Your task to perform on an android device: open app "McDonald's" (install if not already installed) Image 0: 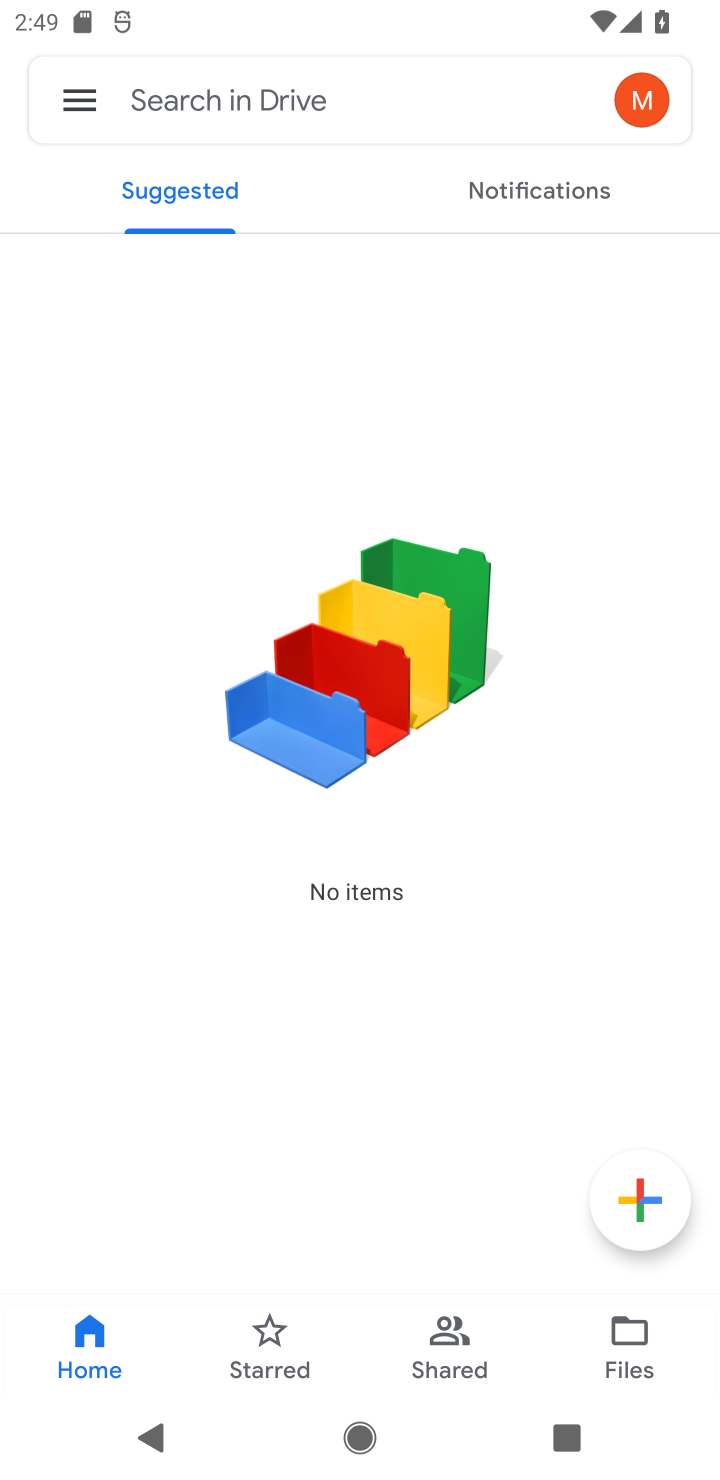
Step 0: press home button
Your task to perform on an android device: open app "McDonald's" (install if not already installed) Image 1: 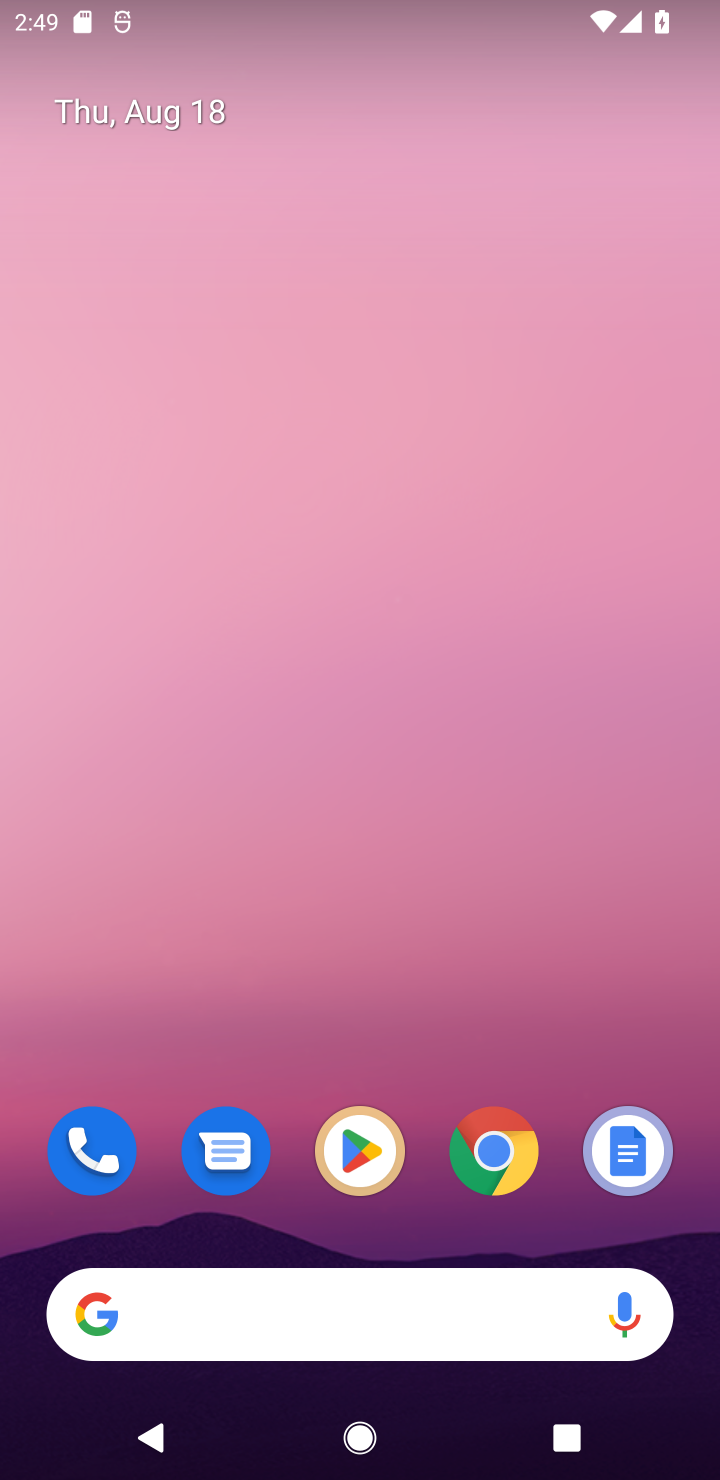
Step 1: click (390, 1157)
Your task to perform on an android device: open app "McDonald's" (install if not already installed) Image 2: 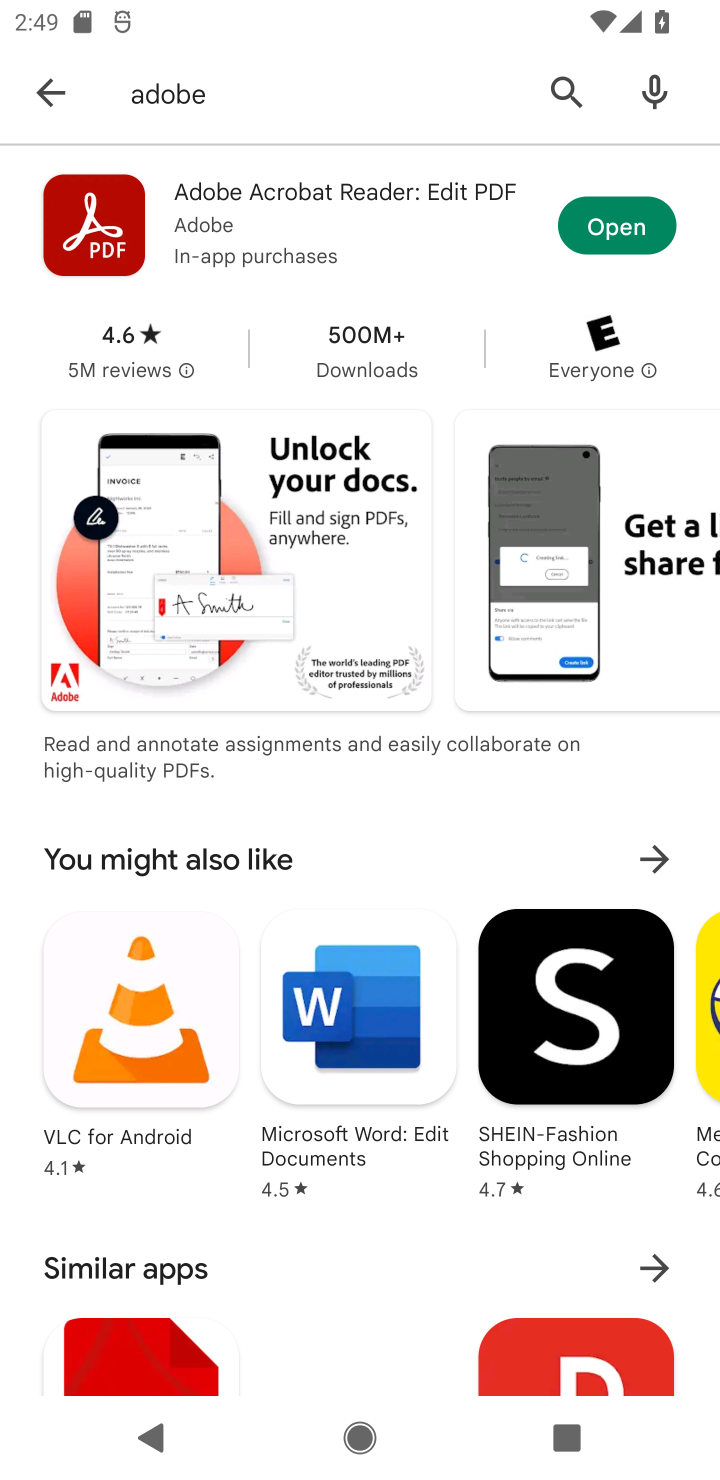
Step 2: click (541, 138)
Your task to perform on an android device: open app "McDonald's" (install if not already installed) Image 3: 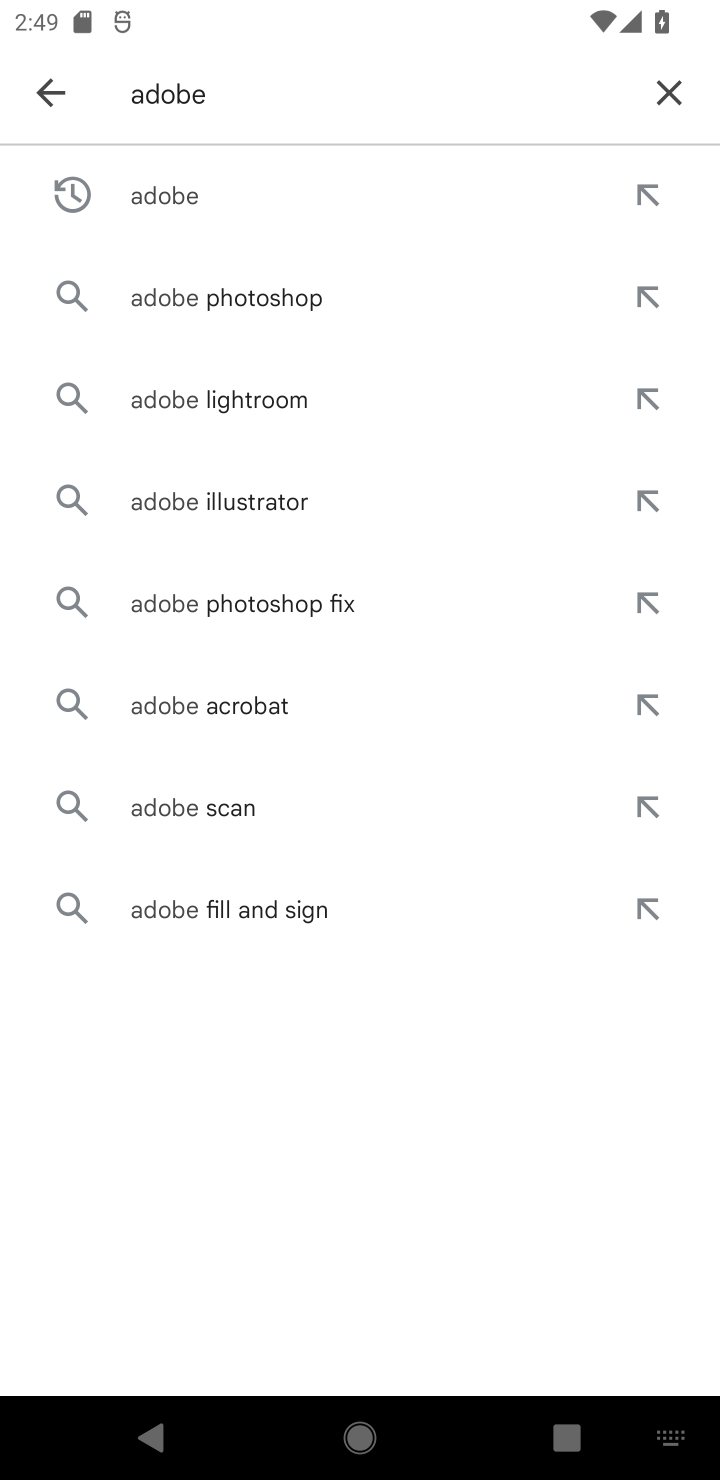
Step 3: click (671, 85)
Your task to perform on an android device: open app "McDonald's" (install if not already installed) Image 4: 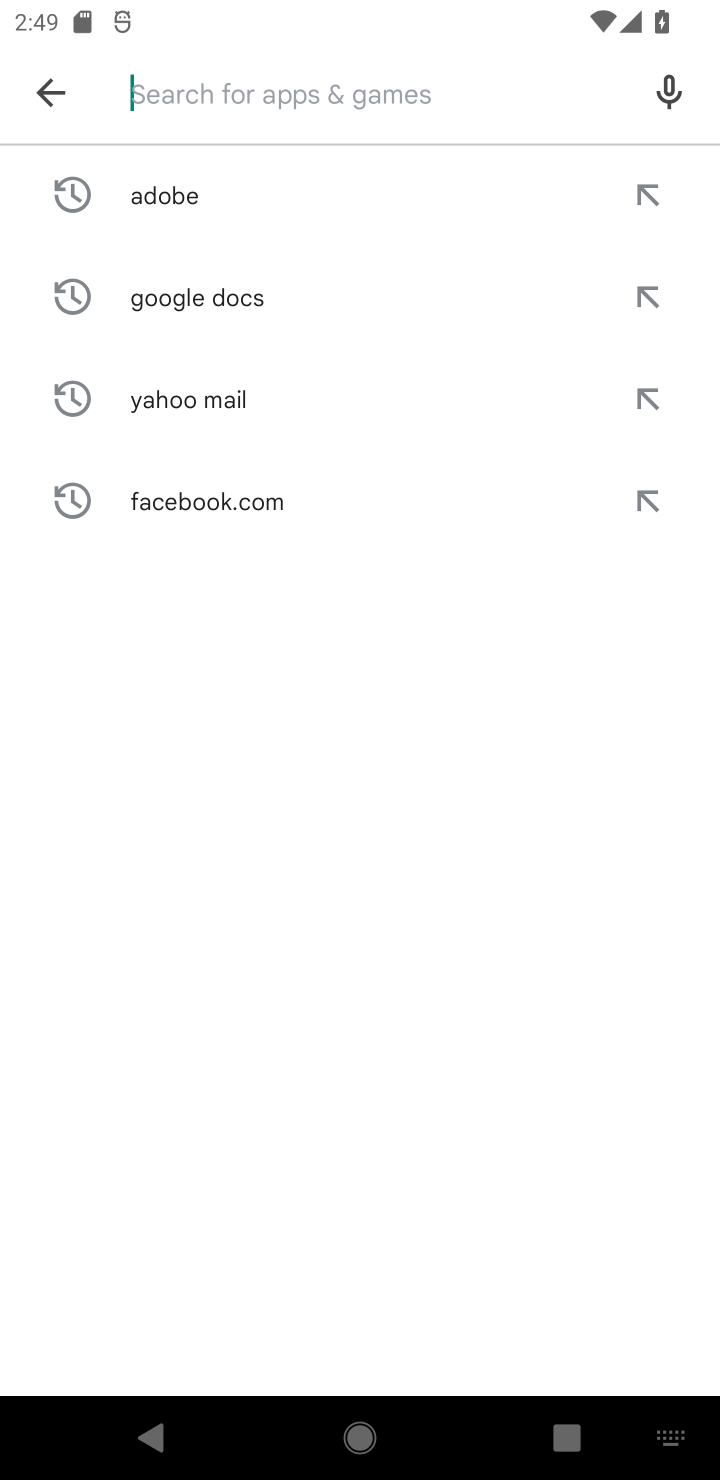
Step 4: type "Mcdolands"
Your task to perform on an android device: open app "McDonald's" (install if not already installed) Image 5: 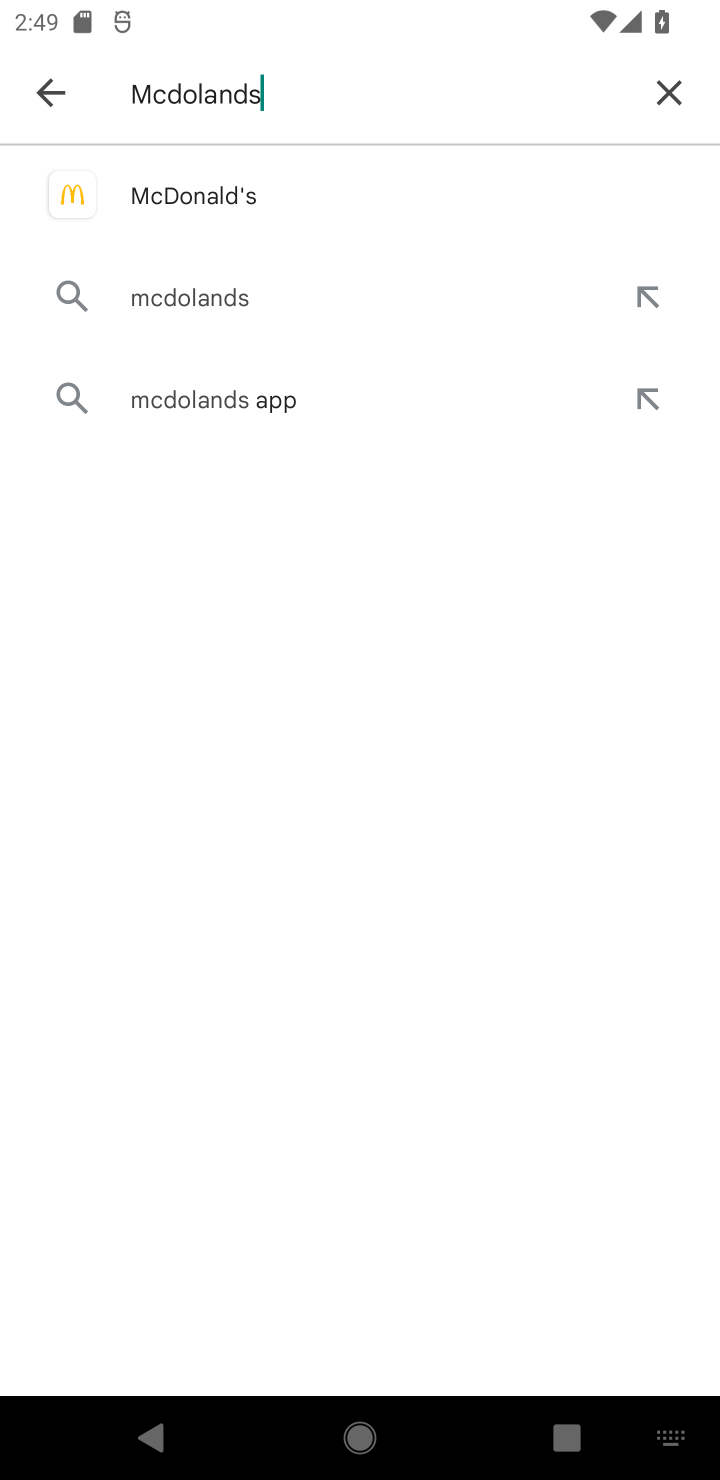
Step 5: click (331, 192)
Your task to perform on an android device: open app "McDonald's" (install if not already installed) Image 6: 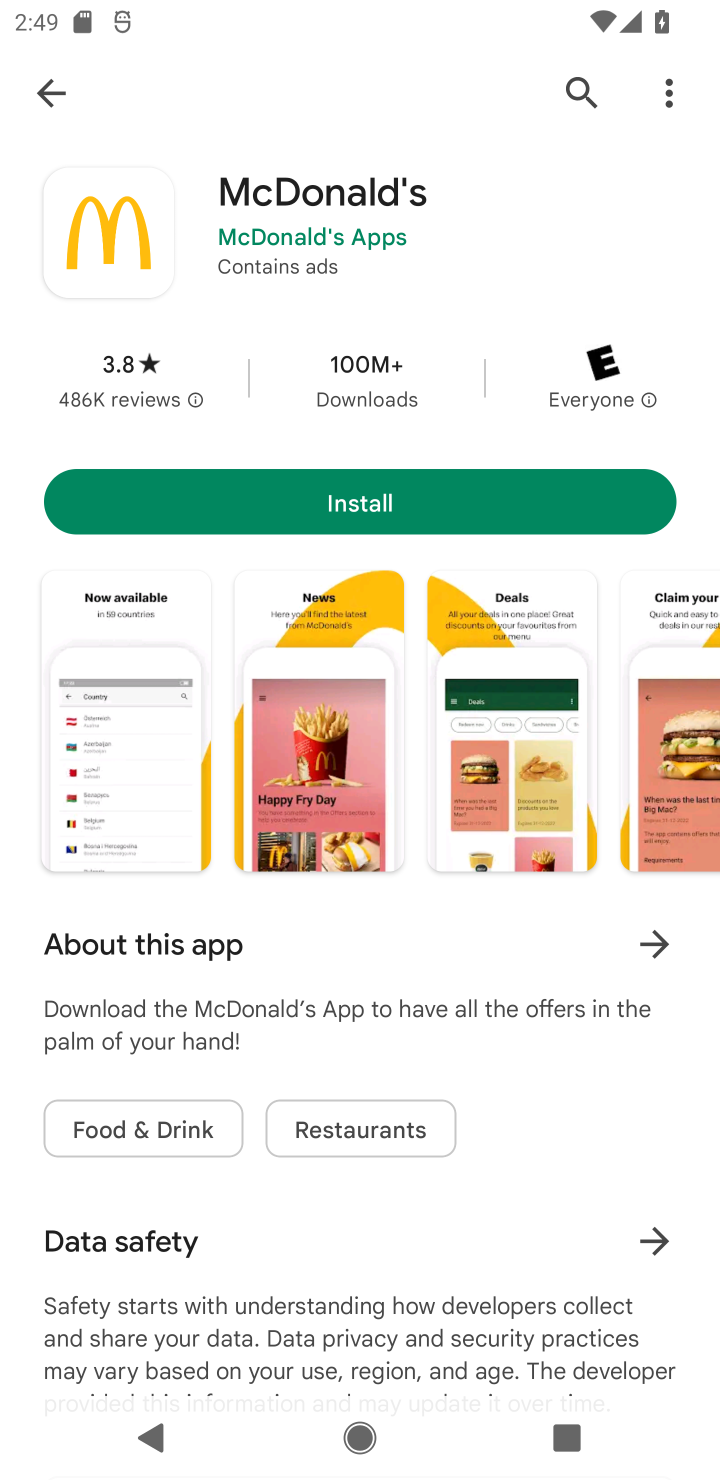
Step 6: click (484, 478)
Your task to perform on an android device: open app "McDonald's" (install if not already installed) Image 7: 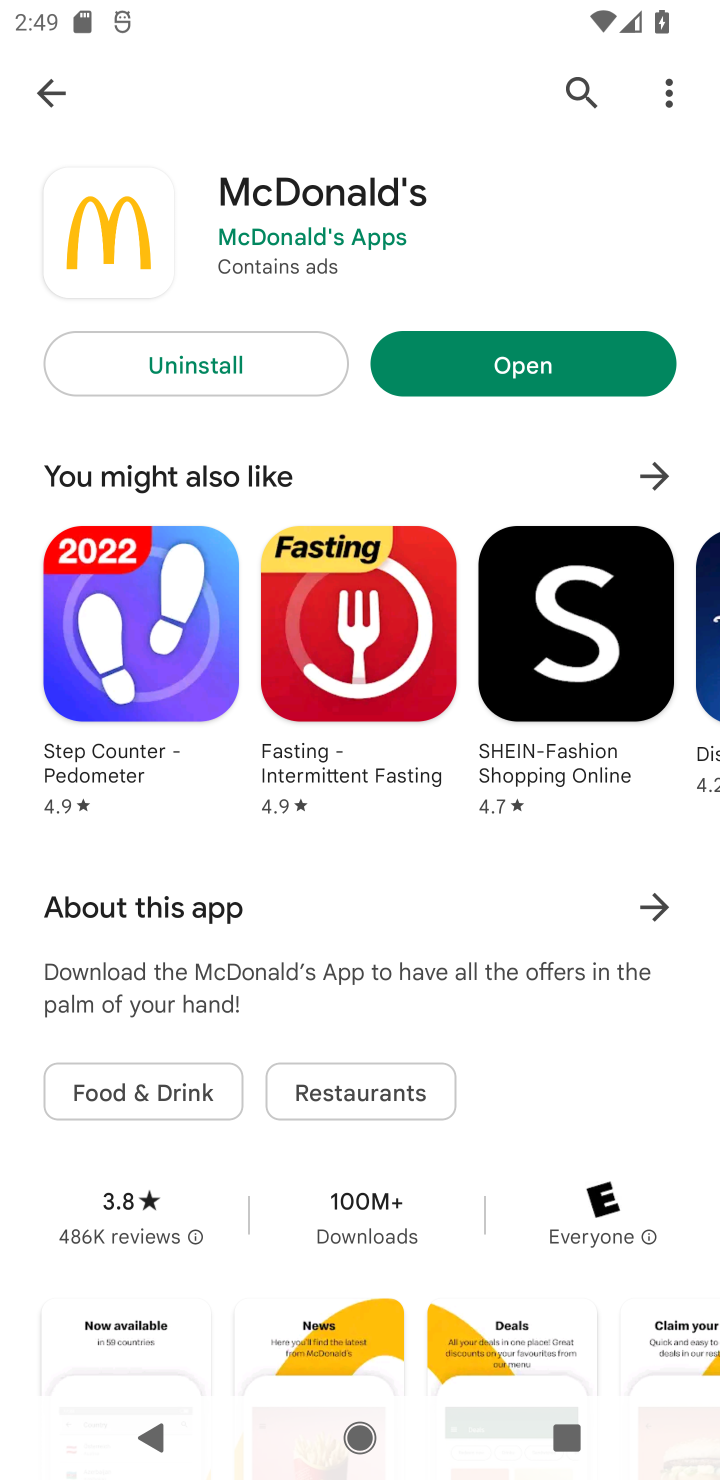
Step 7: click (535, 344)
Your task to perform on an android device: open app "McDonald's" (install if not already installed) Image 8: 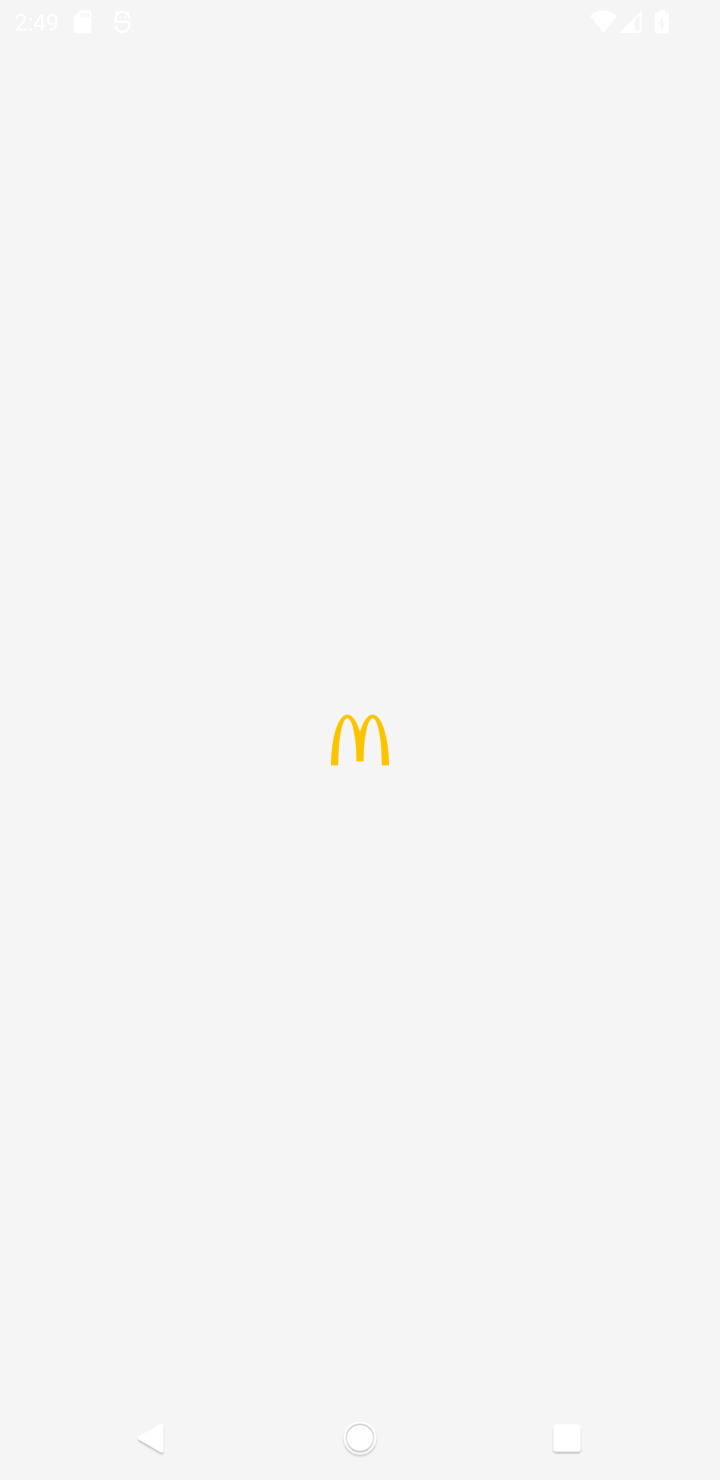
Step 8: task complete